Your task to perform on an android device: turn off javascript in the chrome app Image 0: 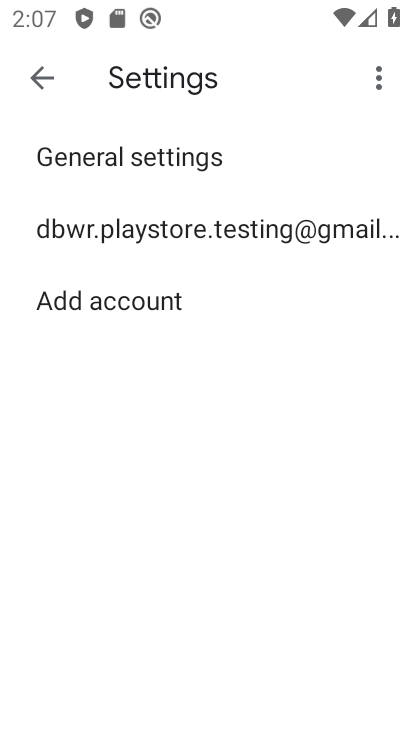
Step 0: press back button
Your task to perform on an android device: turn off javascript in the chrome app Image 1: 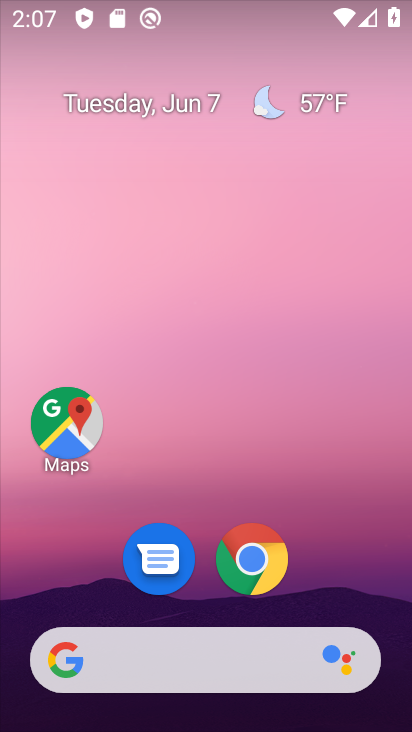
Step 1: drag from (313, 553) to (272, 9)
Your task to perform on an android device: turn off javascript in the chrome app Image 2: 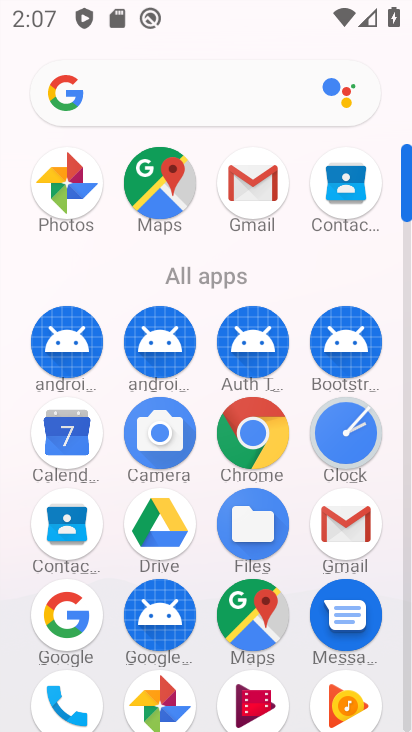
Step 2: click (251, 427)
Your task to perform on an android device: turn off javascript in the chrome app Image 3: 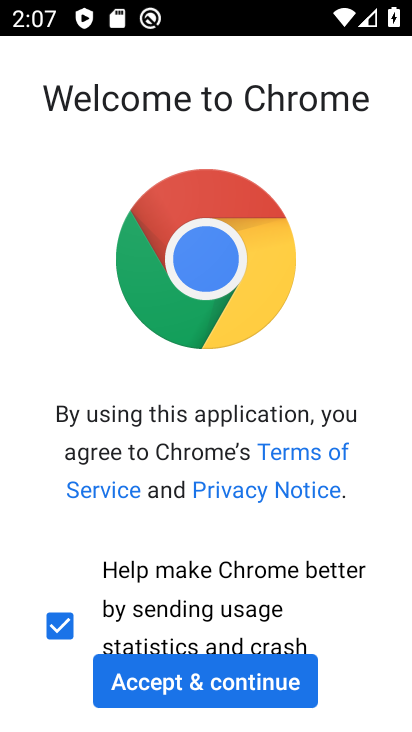
Step 3: click (225, 662)
Your task to perform on an android device: turn off javascript in the chrome app Image 4: 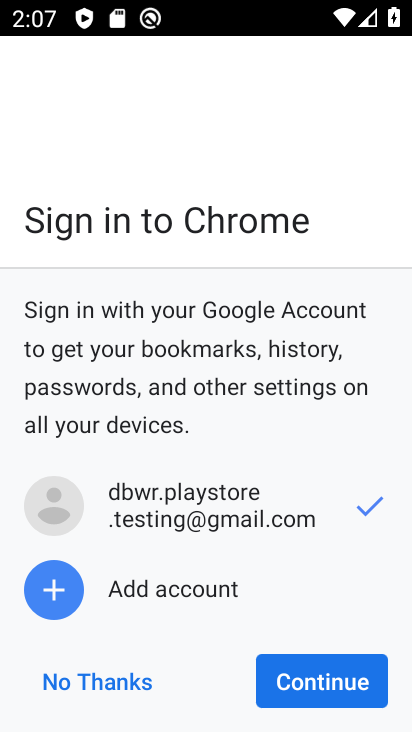
Step 4: click (294, 669)
Your task to perform on an android device: turn off javascript in the chrome app Image 5: 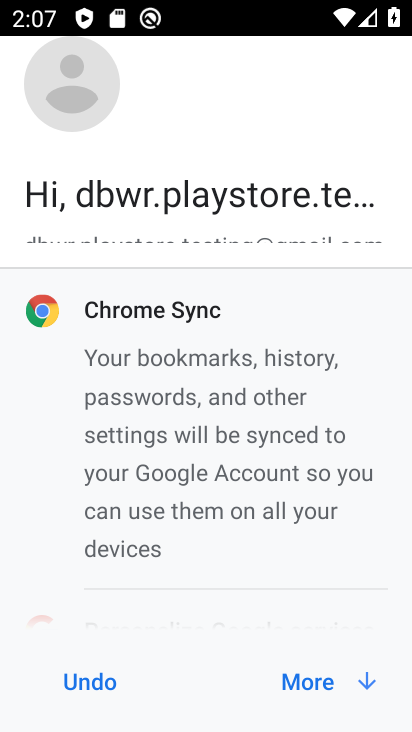
Step 5: click (319, 691)
Your task to perform on an android device: turn off javascript in the chrome app Image 6: 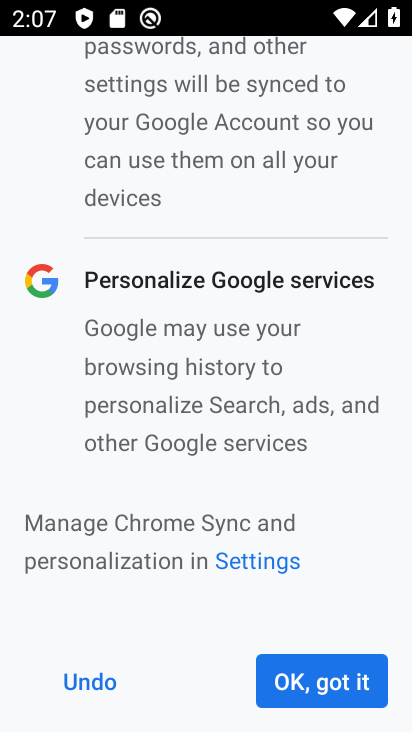
Step 6: click (319, 691)
Your task to perform on an android device: turn off javascript in the chrome app Image 7: 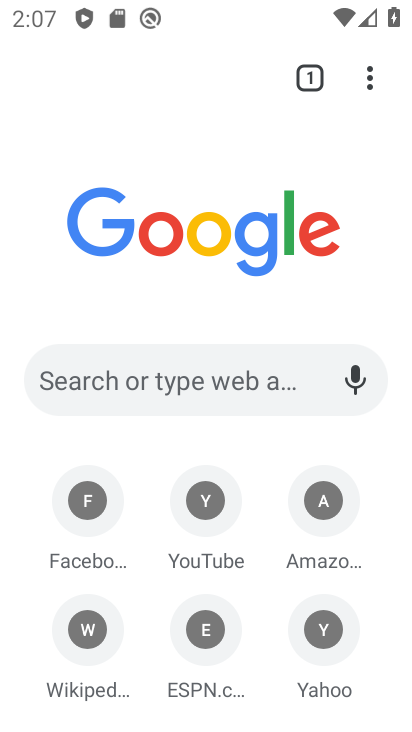
Step 7: drag from (369, 76) to (144, 616)
Your task to perform on an android device: turn off javascript in the chrome app Image 8: 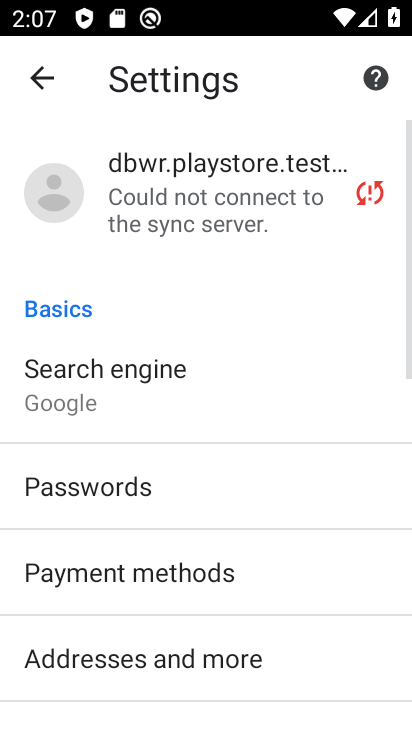
Step 8: drag from (266, 524) to (280, 162)
Your task to perform on an android device: turn off javascript in the chrome app Image 9: 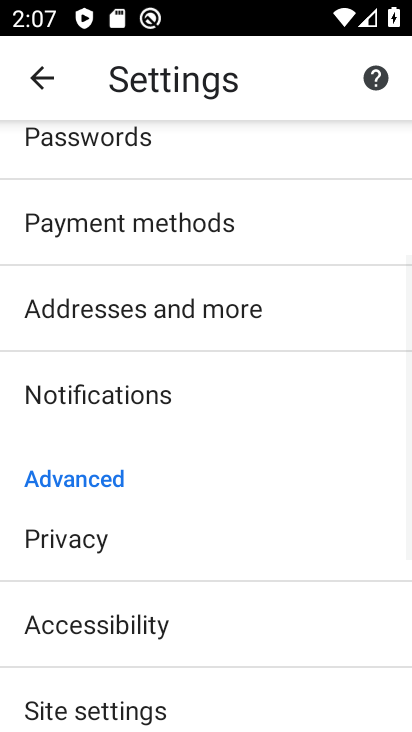
Step 9: drag from (186, 584) to (223, 235)
Your task to perform on an android device: turn off javascript in the chrome app Image 10: 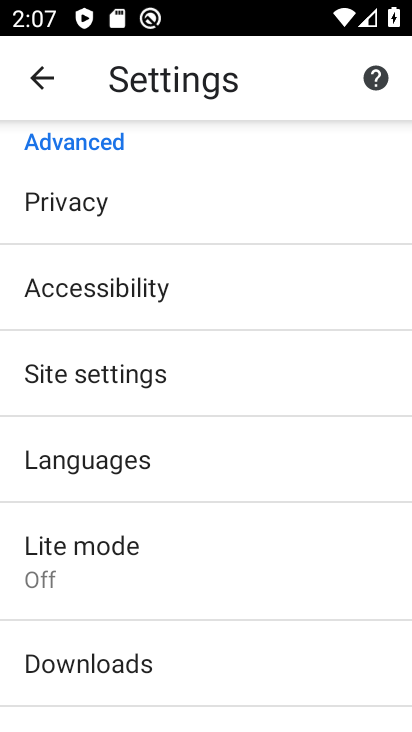
Step 10: drag from (138, 615) to (210, 197)
Your task to perform on an android device: turn off javascript in the chrome app Image 11: 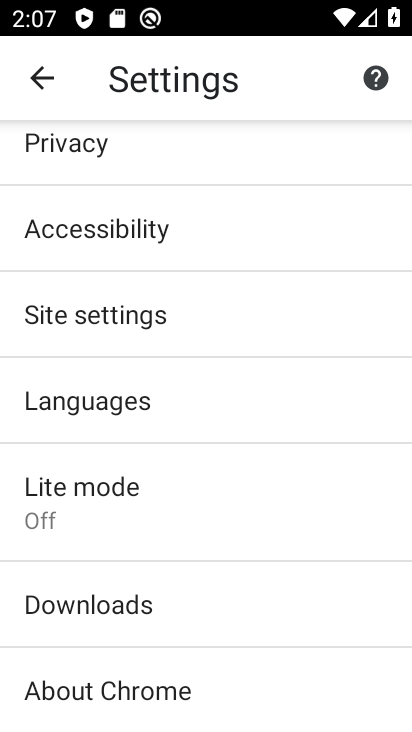
Step 11: drag from (207, 505) to (255, 185)
Your task to perform on an android device: turn off javascript in the chrome app Image 12: 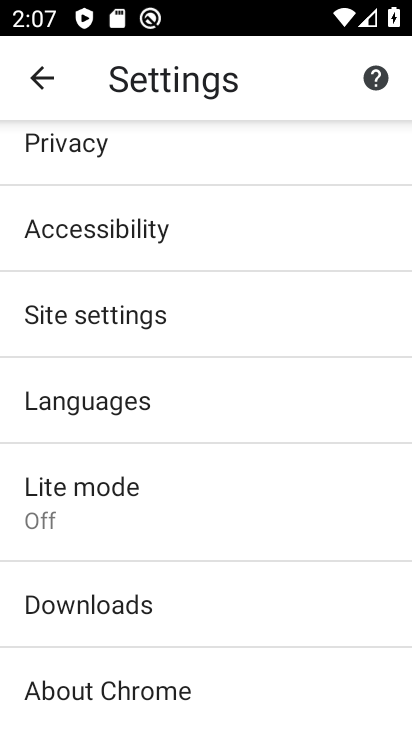
Step 12: drag from (243, 253) to (213, 590)
Your task to perform on an android device: turn off javascript in the chrome app Image 13: 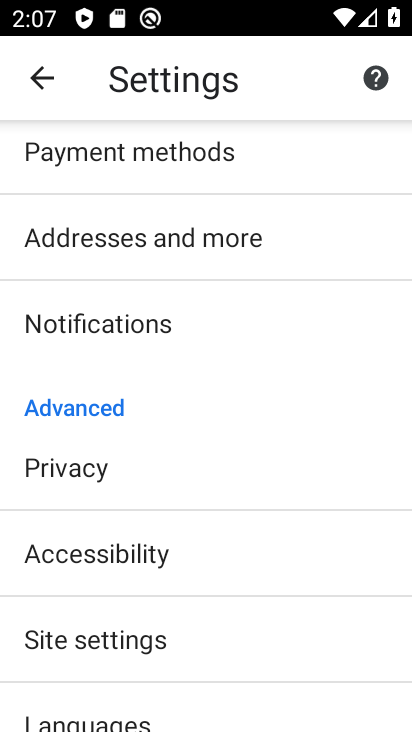
Step 13: click (92, 660)
Your task to perform on an android device: turn off javascript in the chrome app Image 14: 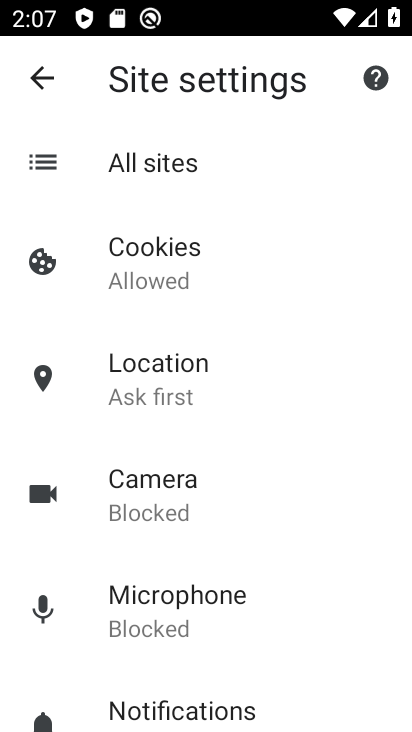
Step 14: drag from (249, 533) to (289, 193)
Your task to perform on an android device: turn off javascript in the chrome app Image 15: 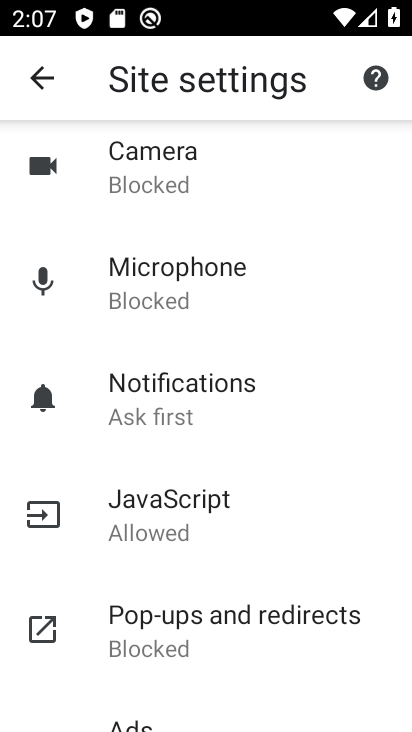
Step 15: click (219, 497)
Your task to perform on an android device: turn off javascript in the chrome app Image 16: 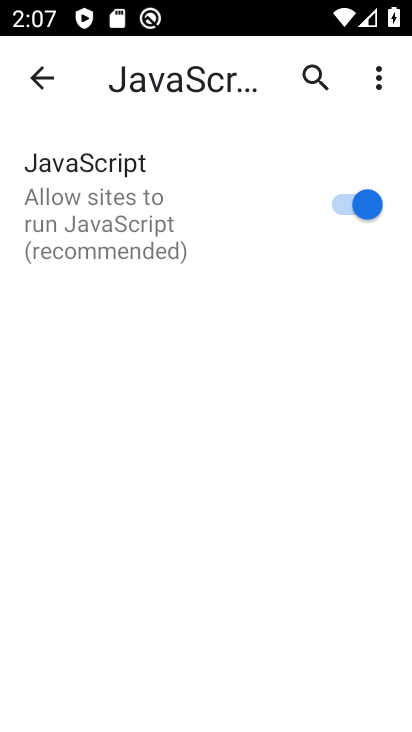
Step 16: click (335, 190)
Your task to perform on an android device: turn off javascript in the chrome app Image 17: 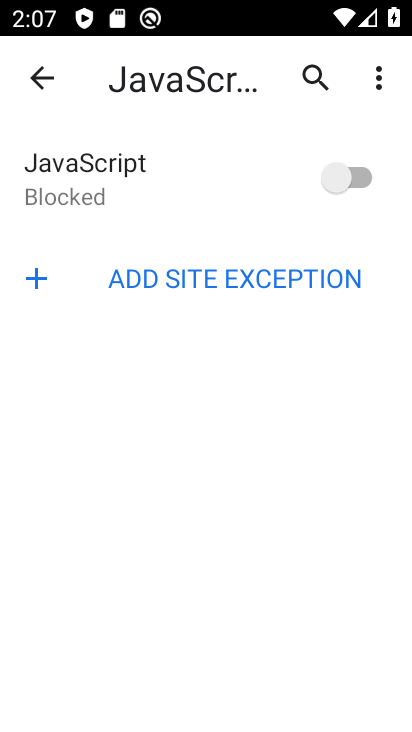
Step 17: click (338, 198)
Your task to perform on an android device: turn off javascript in the chrome app Image 18: 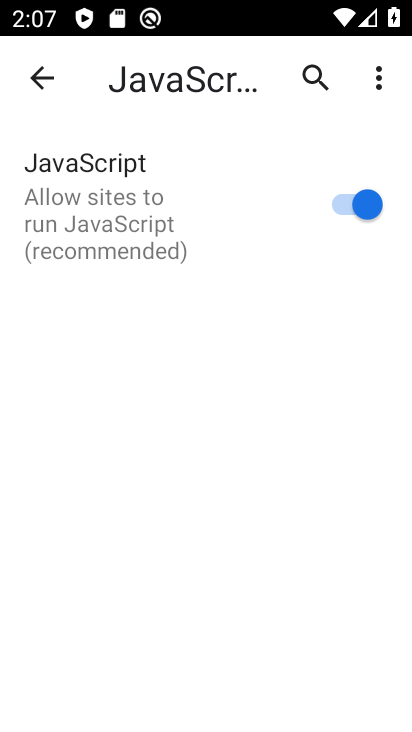
Step 18: task complete